Your task to perform on an android device: See recent photos Image 0: 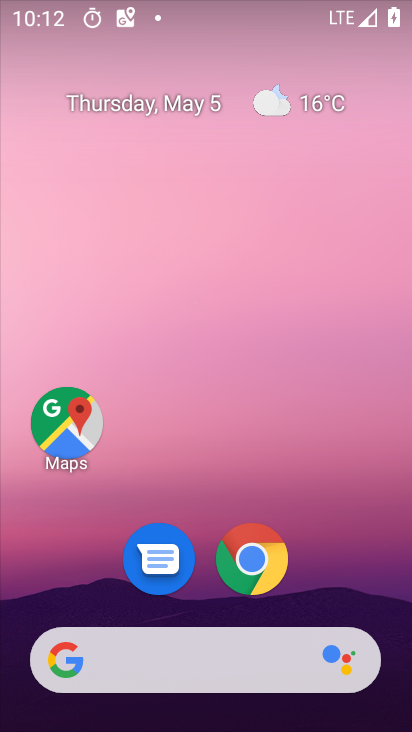
Step 0: drag from (200, 605) to (261, 1)
Your task to perform on an android device: See recent photos Image 1: 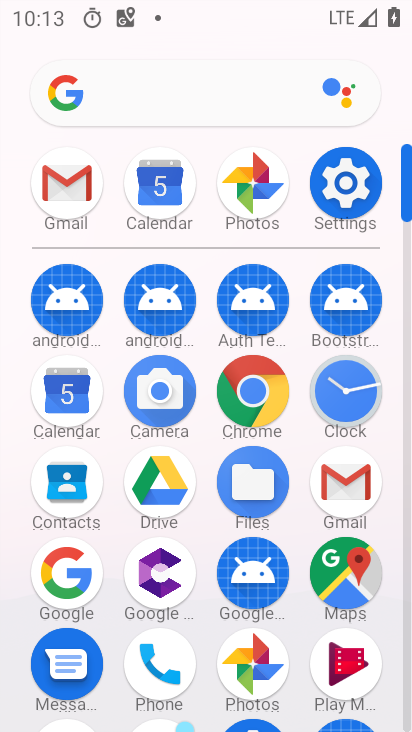
Step 1: click (261, 182)
Your task to perform on an android device: See recent photos Image 2: 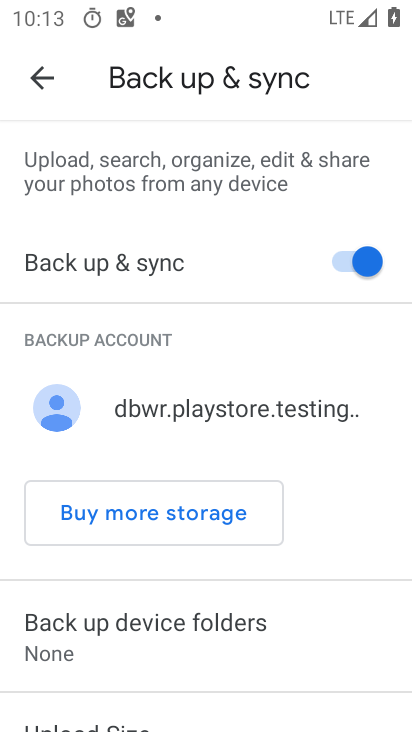
Step 2: click (50, 87)
Your task to perform on an android device: See recent photos Image 3: 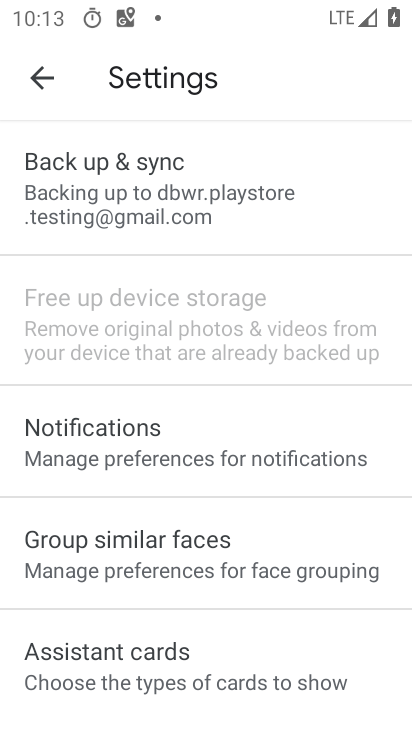
Step 3: click (48, 85)
Your task to perform on an android device: See recent photos Image 4: 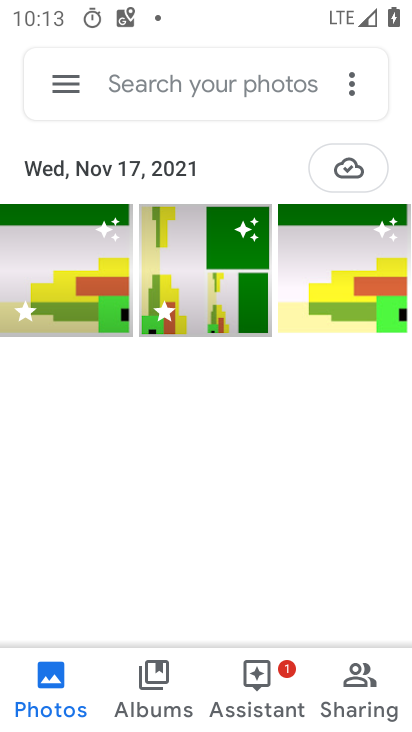
Step 4: click (85, 305)
Your task to perform on an android device: See recent photos Image 5: 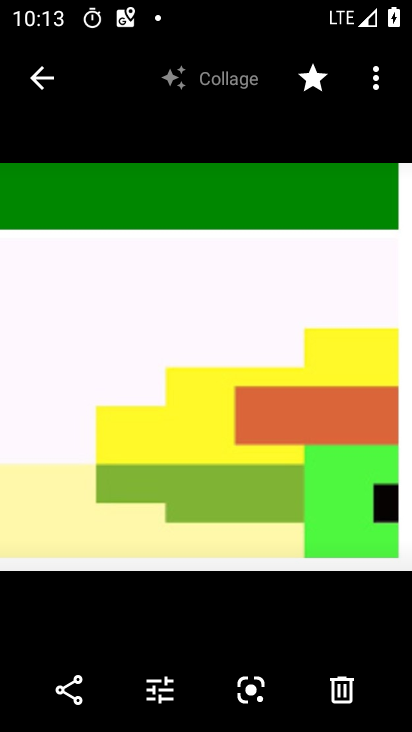
Step 5: task complete